Your task to perform on an android device: Show me popular games on the Play Store Image 0: 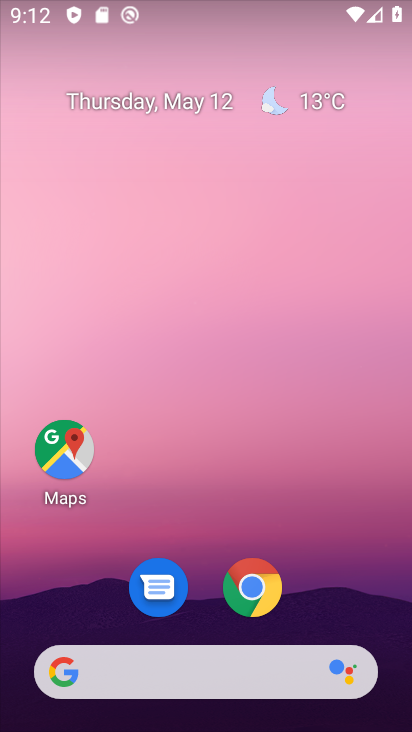
Step 0: drag from (354, 589) to (387, 134)
Your task to perform on an android device: Show me popular games on the Play Store Image 1: 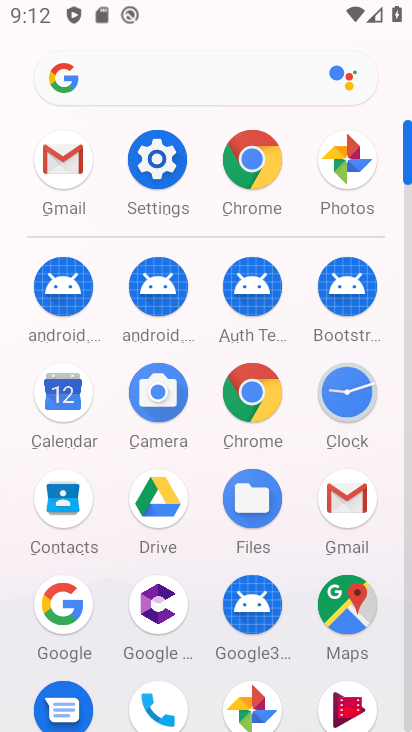
Step 1: drag from (388, 561) to (389, 210)
Your task to perform on an android device: Show me popular games on the Play Store Image 2: 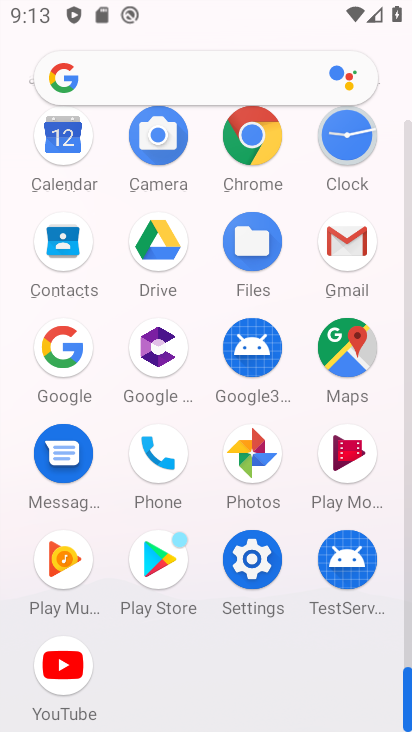
Step 2: click (162, 561)
Your task to perform on an android device: Show me popular games on the Play Store Image 3: 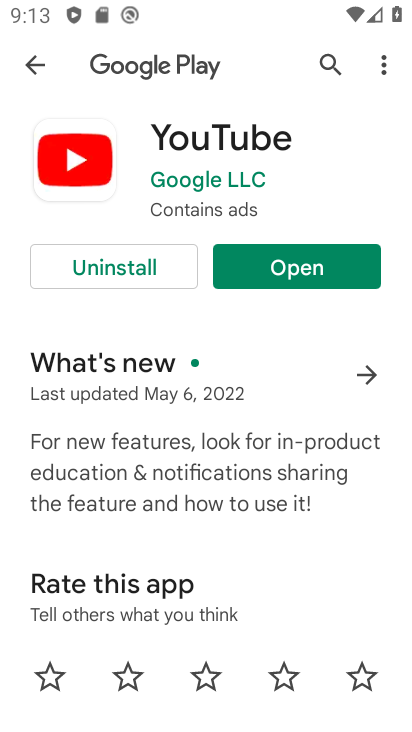
Step 3: click (285, 258)
Your task to perform on an android device: Show me popular games on the Play Store Image 4: 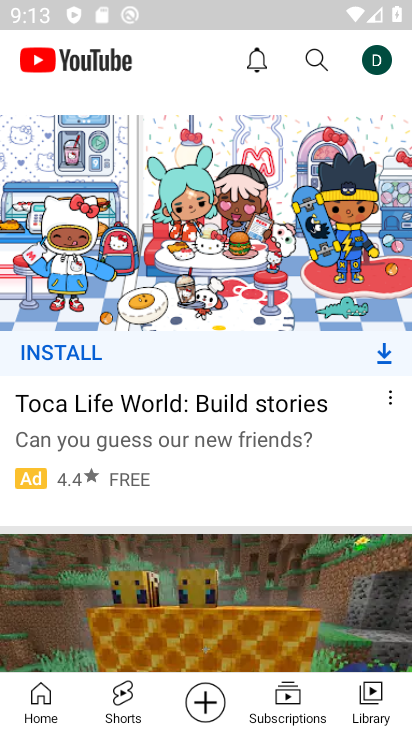
Step 4: press home button
Your task to perform on an android device: Show me popular games on the Play Store Image 5: 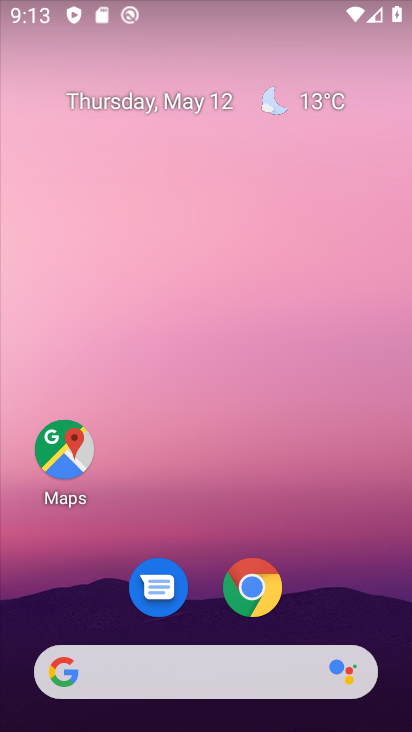
Step 5: drag from (356, 541) to (348, 128)
Your task to perform on an android device: Show me popular games on the Play Store Image 6: 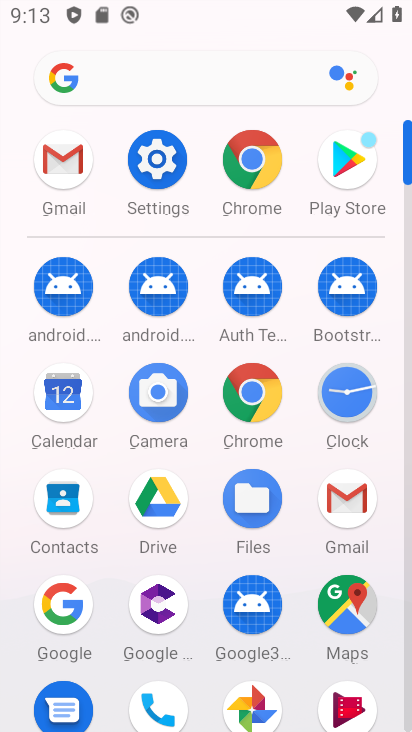
Step 6: click (344, 157)
Your task to perform on an android device: Show me popular games on the Play Store Image 7: 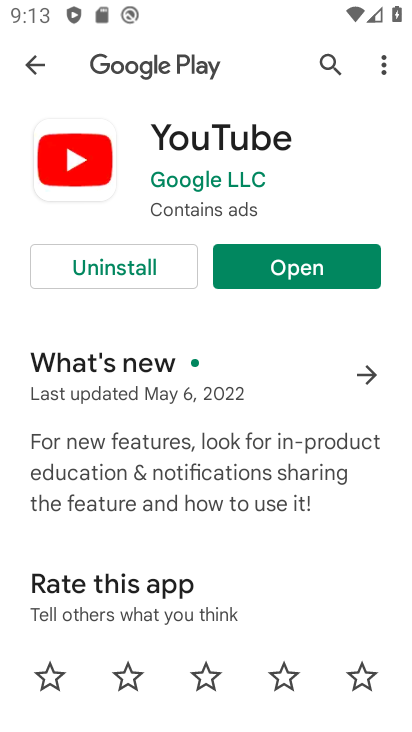
Step 7: click (34, 81)
Your task to perform on an android device: Show me popular games on the Play Store Image 8: 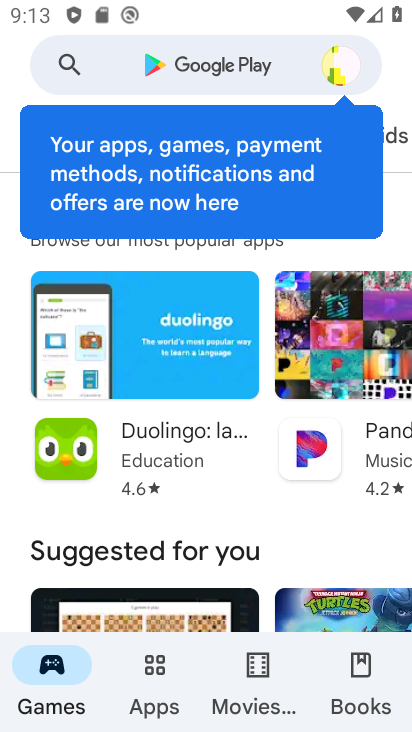
Step 8: click (225, 56)
Your task to perform on an android device: Show me popular games on the Play Store Image 9: 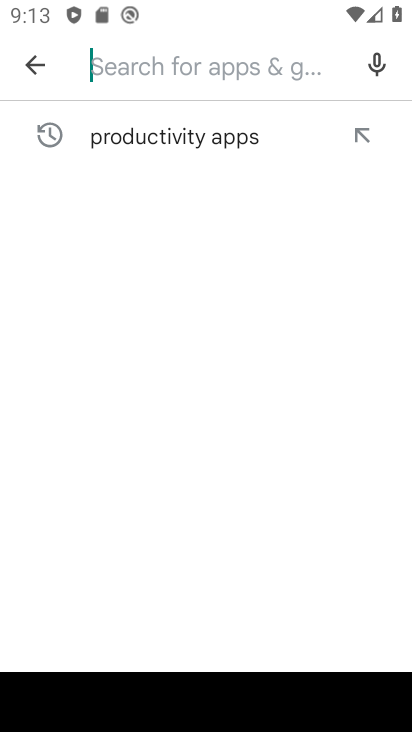
Step 9: type "popular games"
Your task to perform on an android device: Show me popular games on the Play Store Image 10: 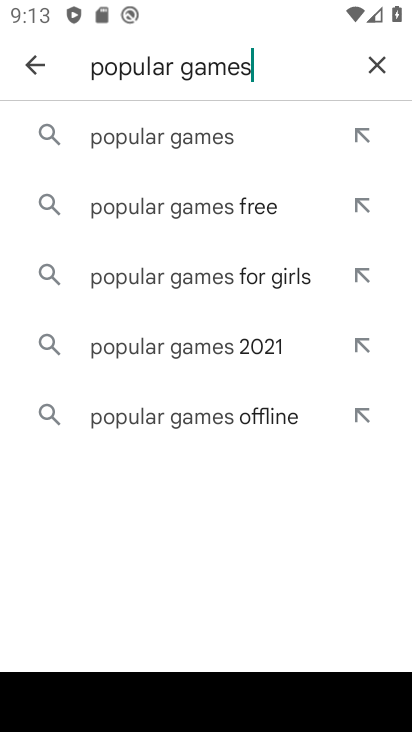
Step 10: click (144, 145)
Your task to perform on an android device: Show me popular games on the Play Store Image 11: 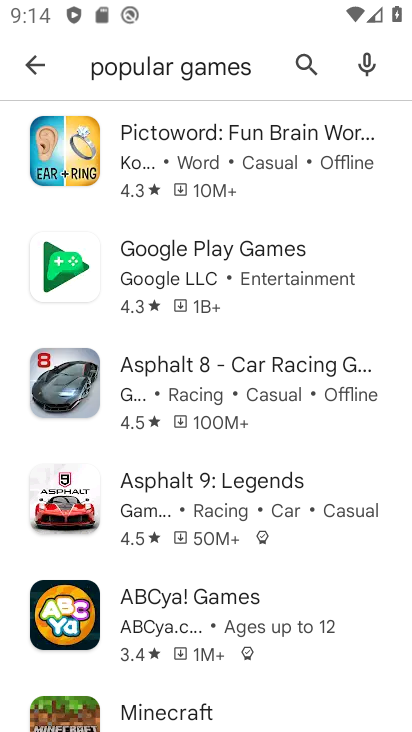
Step 11: task complete